Your task to perform on an android device: toggle translation in the chrome app Image 0: 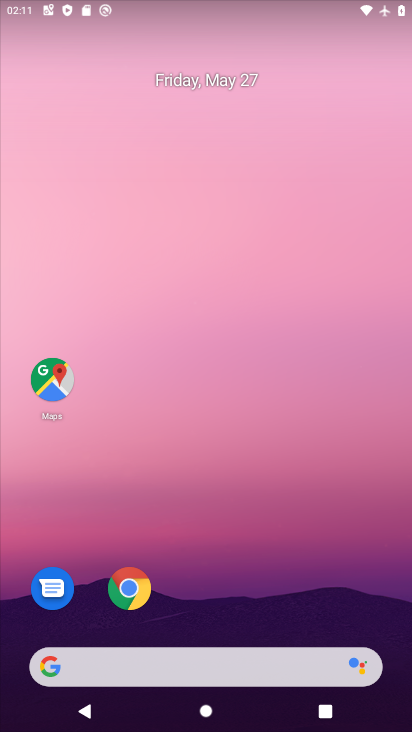
Step 0: click (134, 586)
Your task to perform on an android device: toggle translation in the chrome app Image 1: 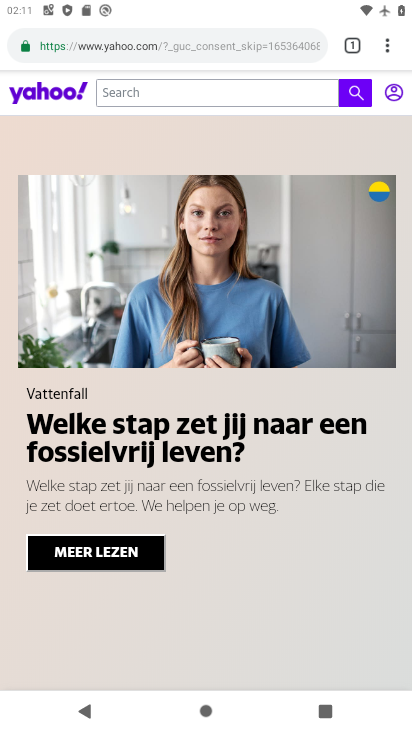
Step 1: click (384, 41)
Your task to perform on an android device: toggle translation in the chrome app Image 2: 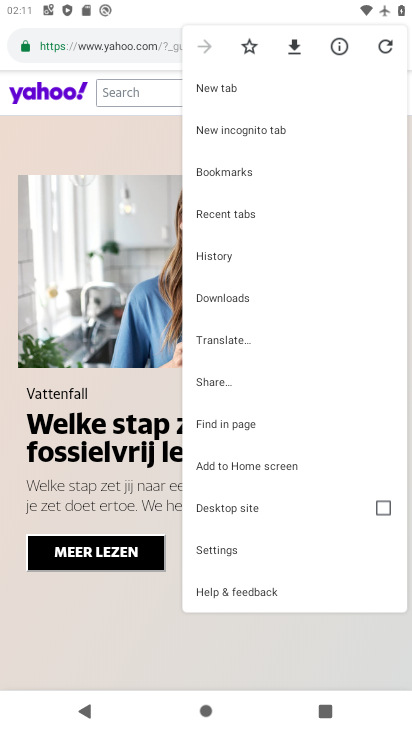
Step 2: click (222, 549)
Your task to perform on an android device: toggle translation in the chrome app Image 3: 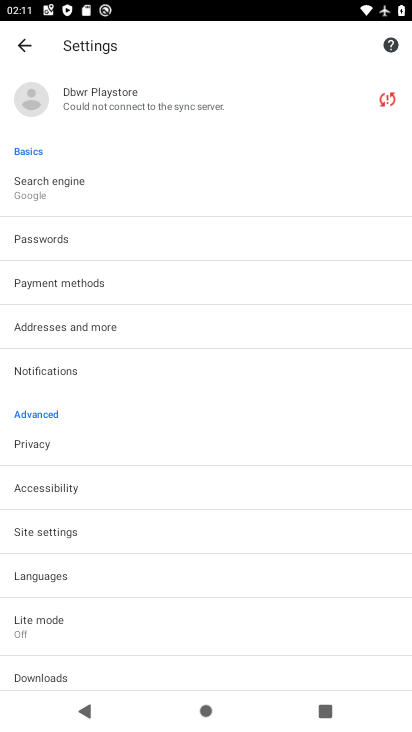
Step 3: click (53, 580)
Your task to perform on an android device: toggle translation in the chrome app Image 4: 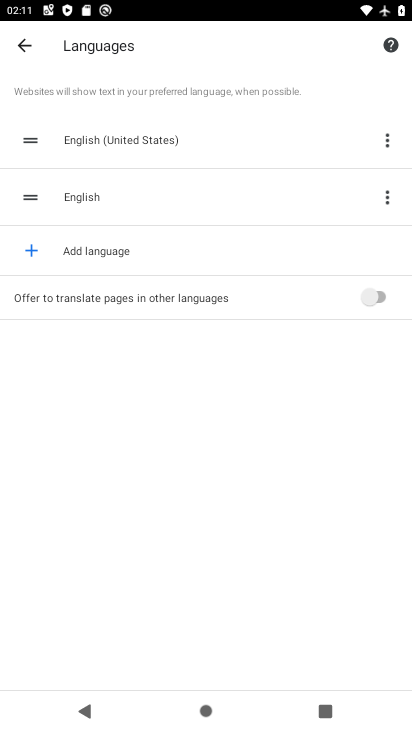
Step 4: click (385, 296)
Your task to perform on an android device: toggle translation in the chrome app Image 5: 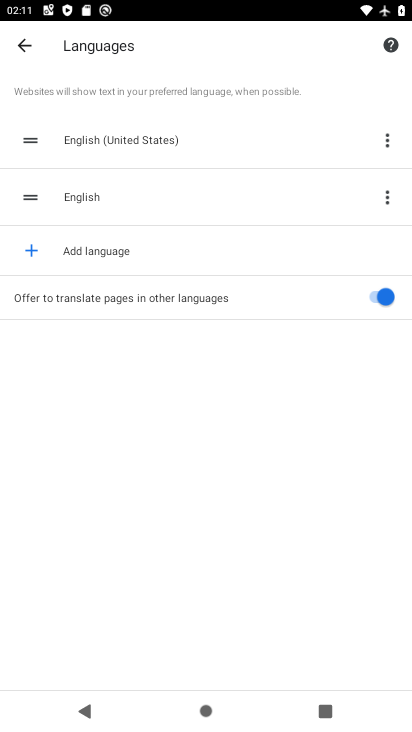
Step 5: task complete